Your task to perform on an android device: Go to sound settings Image 0: 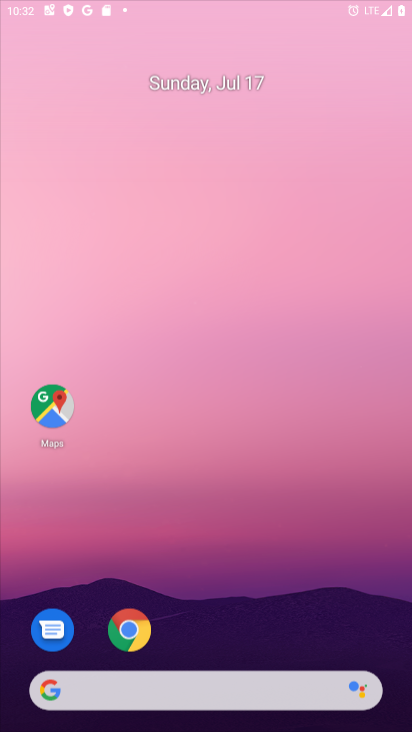
Step 0: press home button
Your task to perform on an android device: Go to sound settings Image 1: 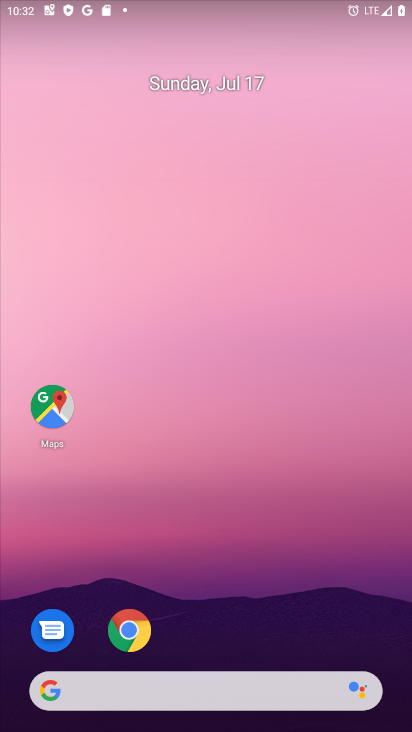
Step 1: drag from (206, 643) to (274, 14)
Your task to perform on an android device: Go to sound settings Image 2: 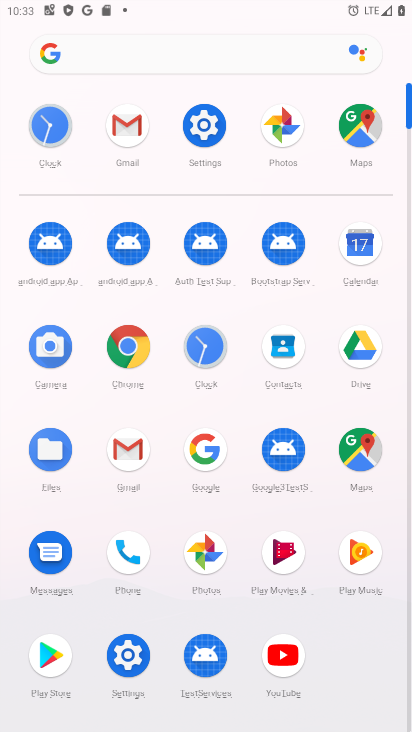
Step 2: click (201, 120)
Your task to perform on an android device: Go to sound settings Image 3: 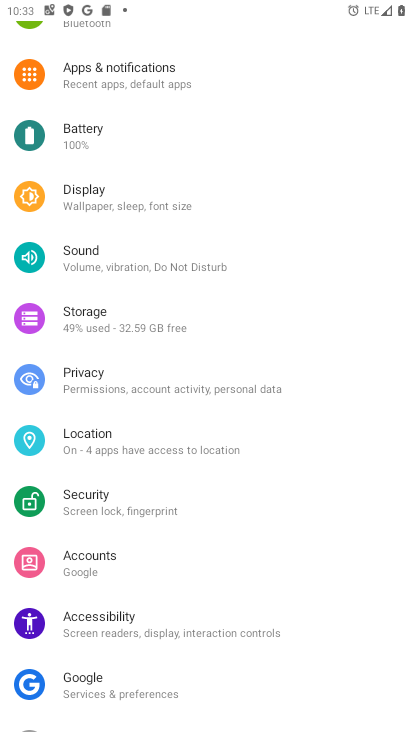
Step 3: click (122, 247)
Your task to perform on an android device: Go to sound settings Image 4: 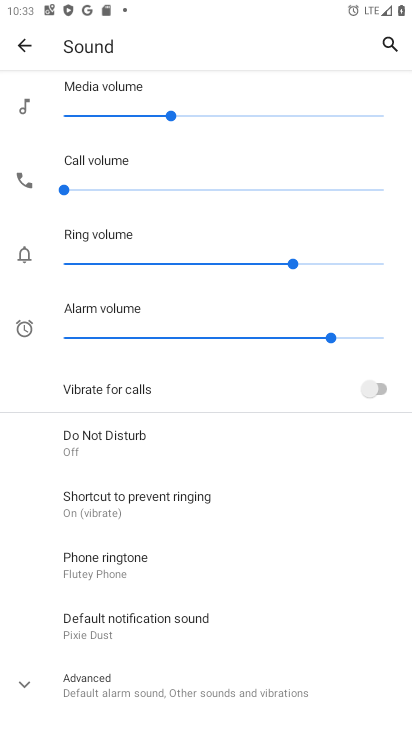
Step 4: click (28, 691)
Your task to perform on an android device: Go to sound settings Image 5: 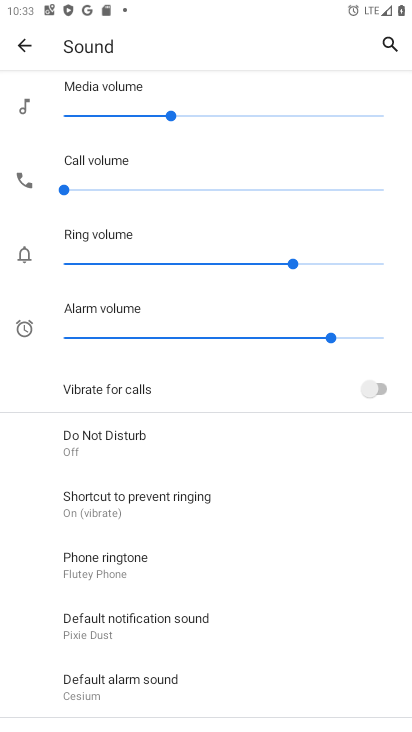
Step 5: task complete